Your task to perform on an android device: make emails show in primary in the gmail app Image 0: 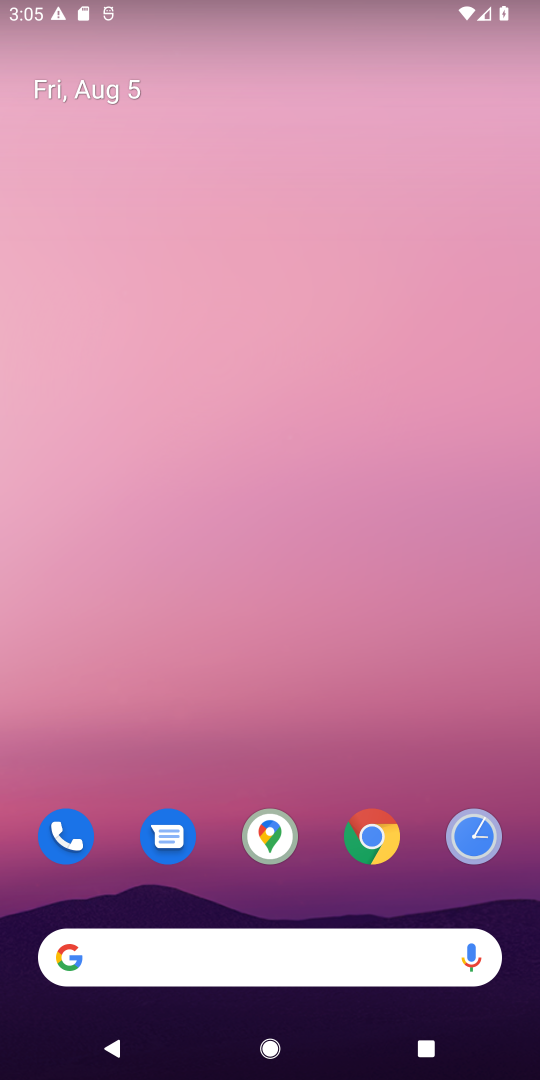
Step 0: drag from (198, 939) to (183, 131)
Your task to perform on an android device: make emails show in primary in the gmail app Image 1: 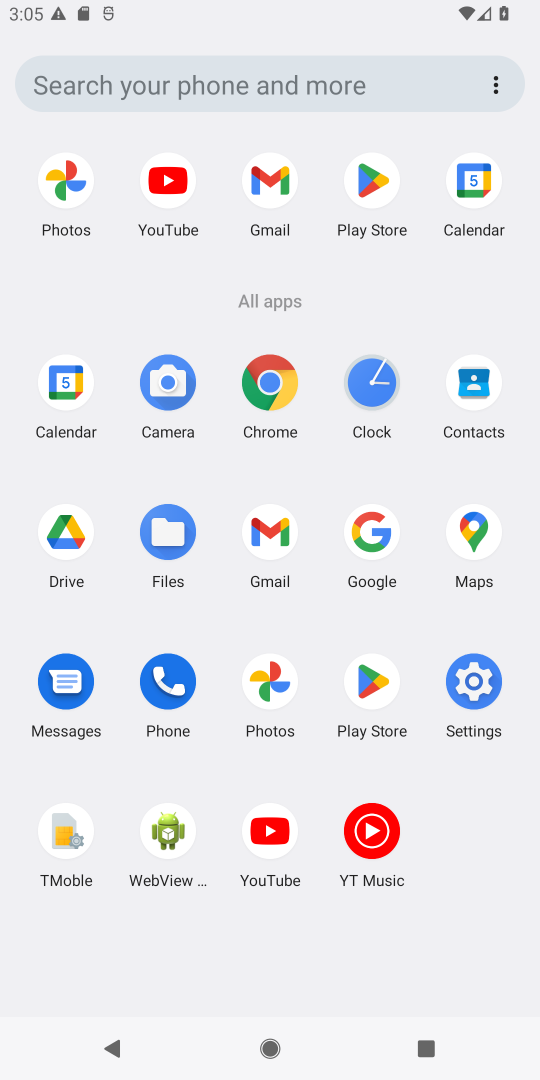
Step 1: click (271, 185)
Your task to perform on an android device: make emails show in primary in the gmail app Image 2: 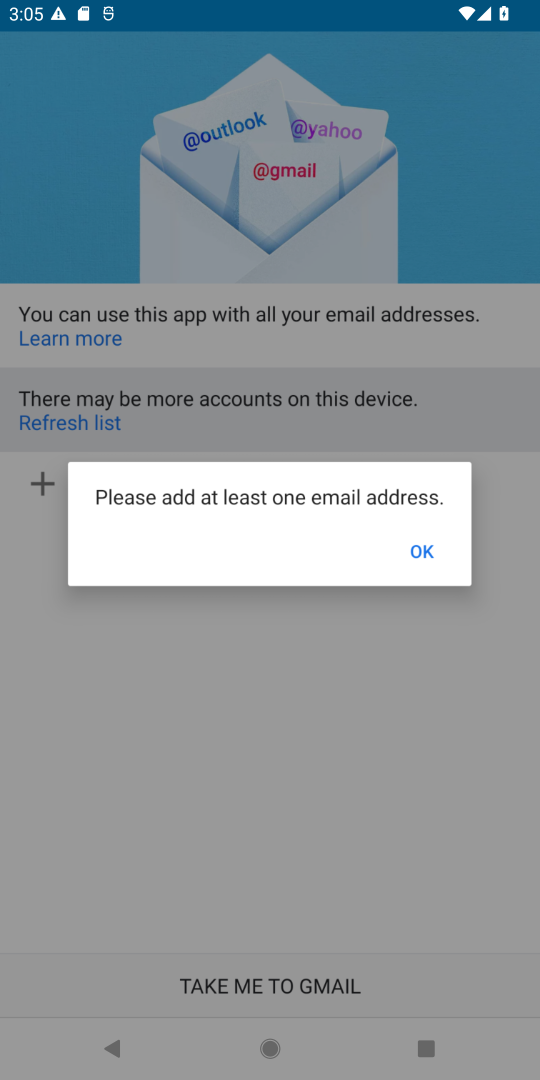
Step 2: task complete